Your task to perform on an android device: Go to location settings Image 0: 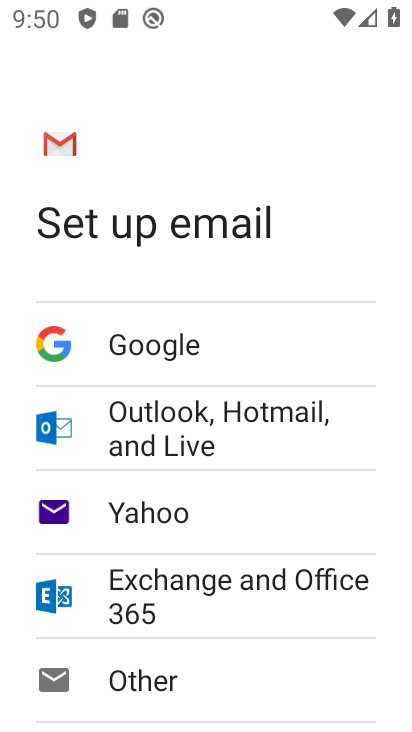
Step 0: press home button
Your task to perform on an android device: Go to location settings Image 1: 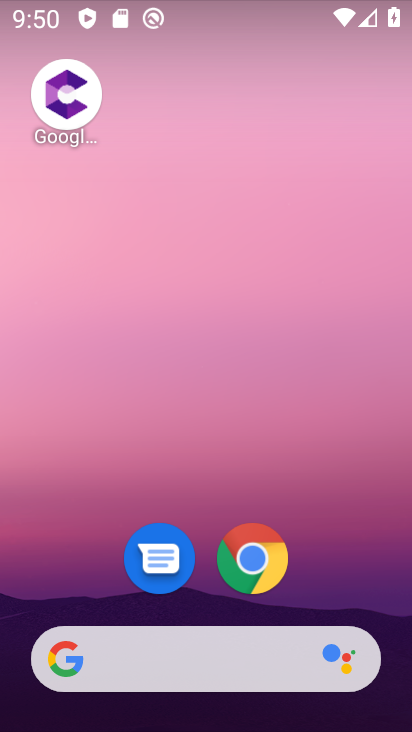
Step 1: drag from (48, 450) to (221, 72)
Your task to perform on an android device: Go to location settings Image 2: 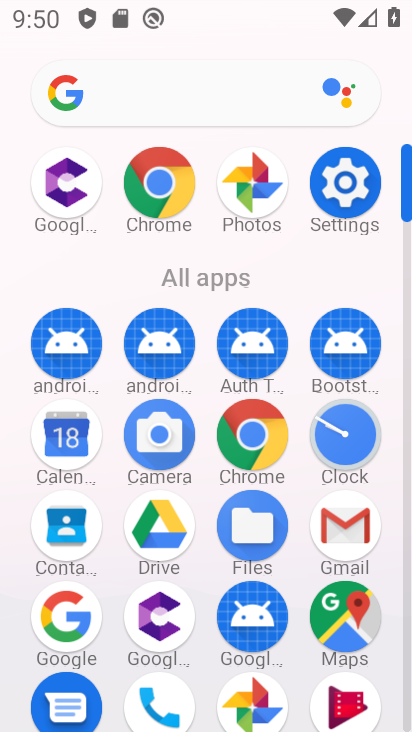
Step 2: click (354, 183)
Your task to perform on an android device: Go to location settings Image 3: 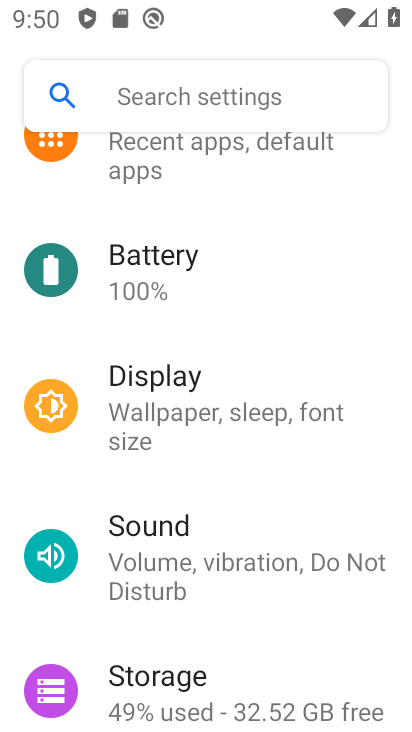
Step 3: drag from (39, 562) to (222, 158)
Your task to perform on an android device: Go to location settings Image 4: 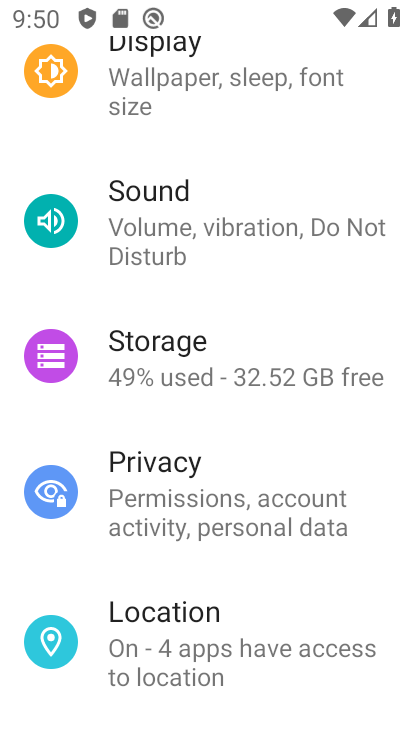
Step 4: click (176, 643)
Your task to perform on an android device: Go to location settings Image 5: 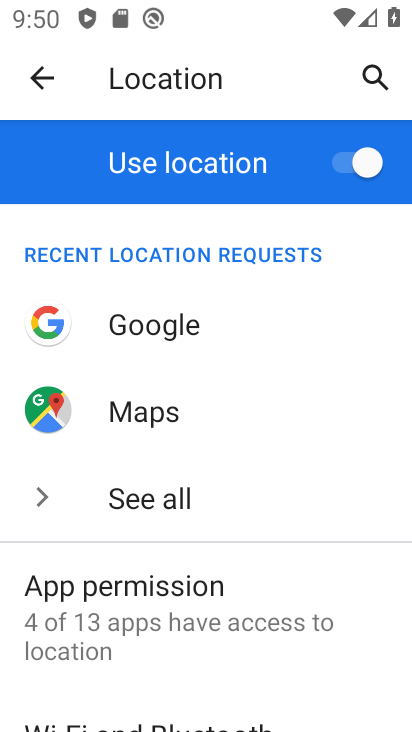
Step 5: task complete